Your task to perform on an android device: turn on location history Image 0: 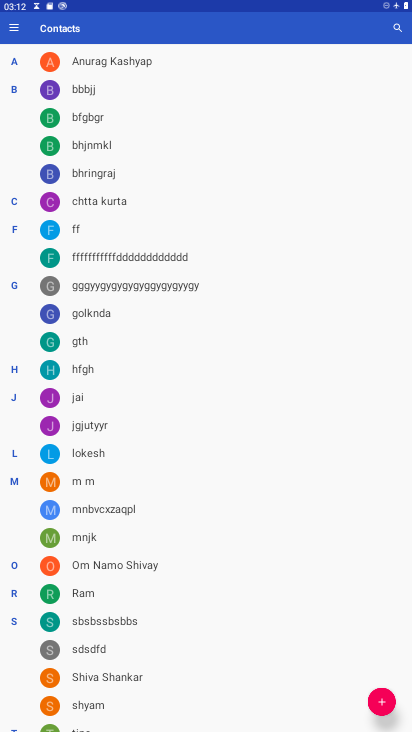
Step 0: press home button
Your task to perform on an android device: turn on location history Image 1: 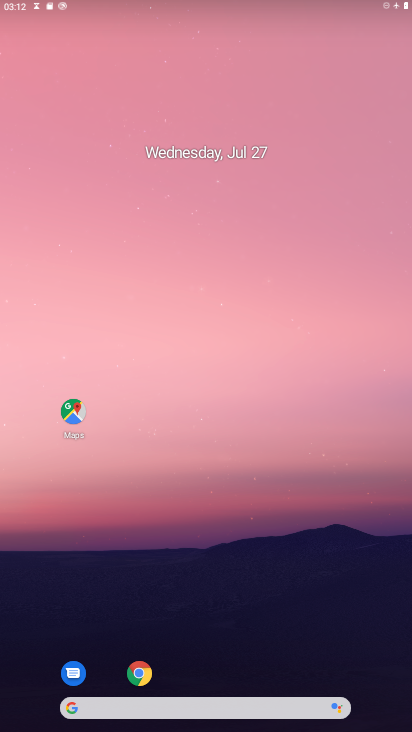
Step 1: drag from (164, 679) to (206, 216)
Your task to perform on an android device: turn on location history Image 2: 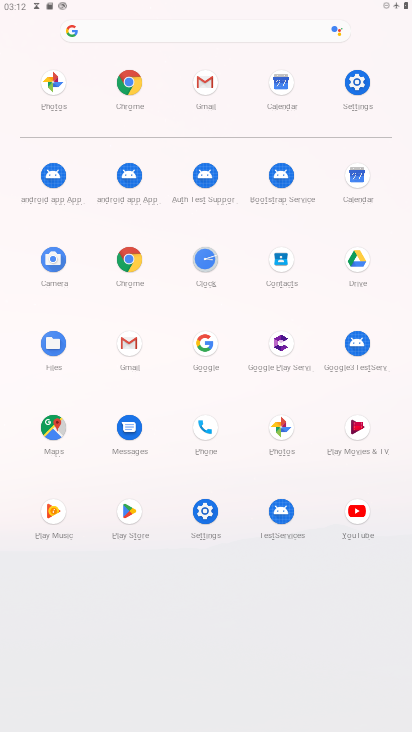
Step 2: click (356, 82)
Your task to perform on an android device: turn on location history Image 3: 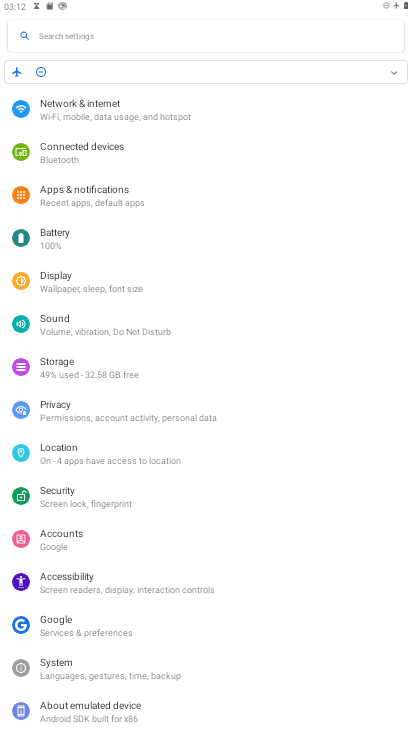
Step 3: click (79, 439)
Your task to perform on an android device: turn on location history Image 4: 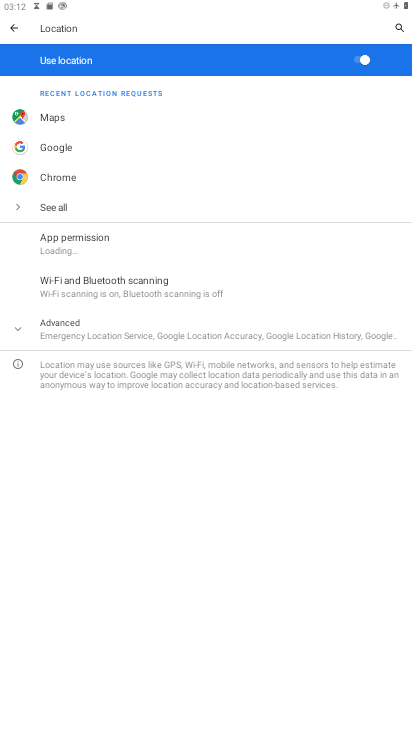
Step 4: click (130, 328)
Your task to perform on an android device: turn on location history Image 5: 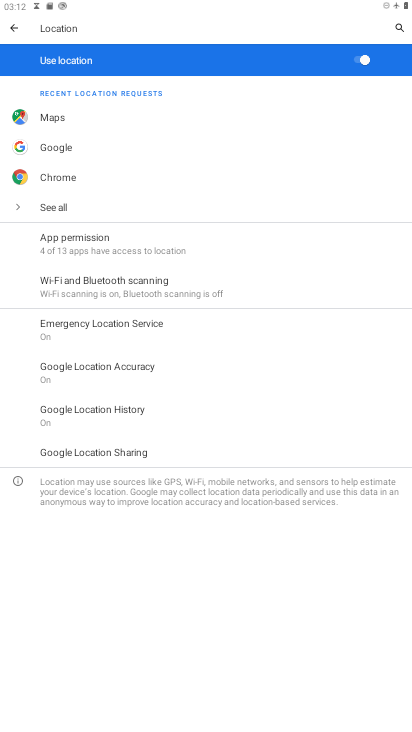
Step 5: click (119, 415)
Your task to perform on an android device: turn on location history Image 6: 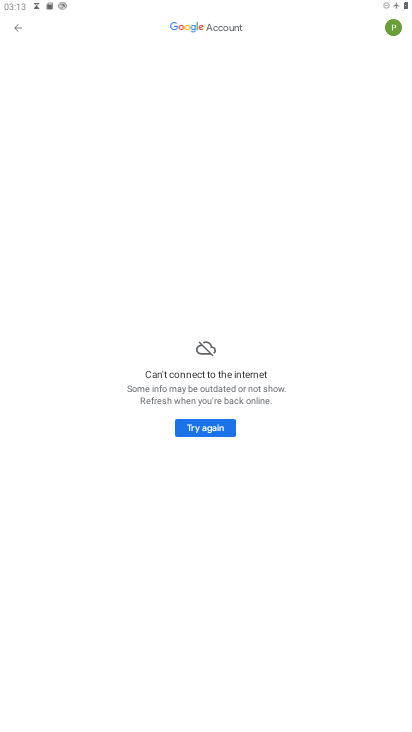
Step 6: task complete